Your task to perform on an android device: toggle airplane mode Image 0: 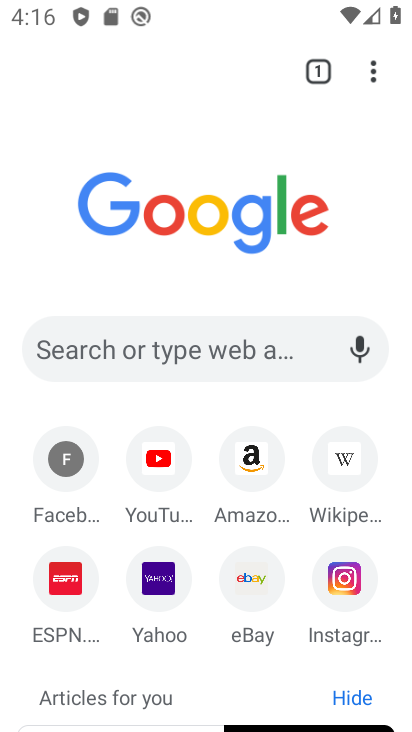
Step 0: press home button
Your task to perform on an android device: toggle airplane mode Image 1: 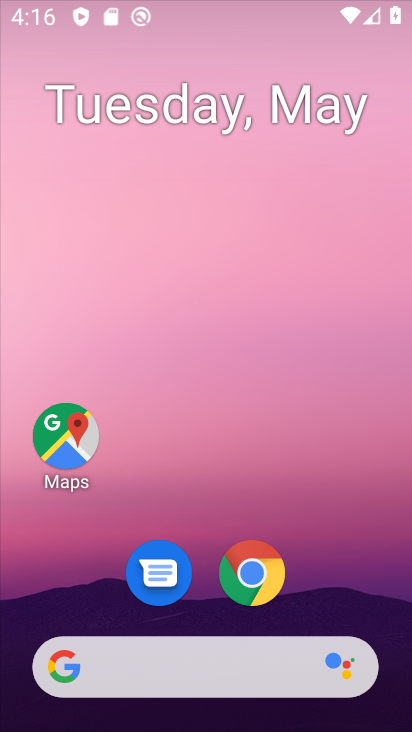
Step 1: drag from (301, 481) to (281, 52)
Your task to perform on an android device: toggle airplane mode Image 2: 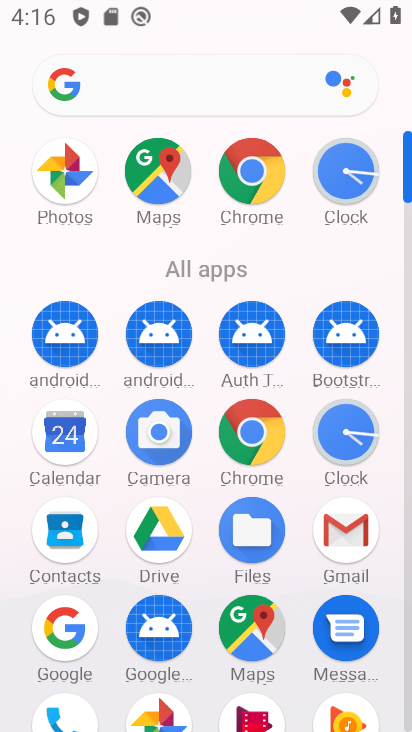
Step 2: drag from (251, 507) to (296, 116)
Your task to perform on an android device: toggle airplane mode Image 3: 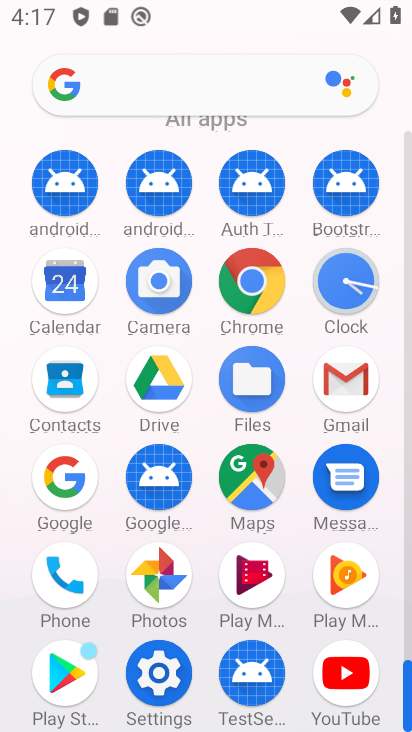
Step 3: click (159, 668)
Your task to perform on an android device: toggle airplane mode Image 4: 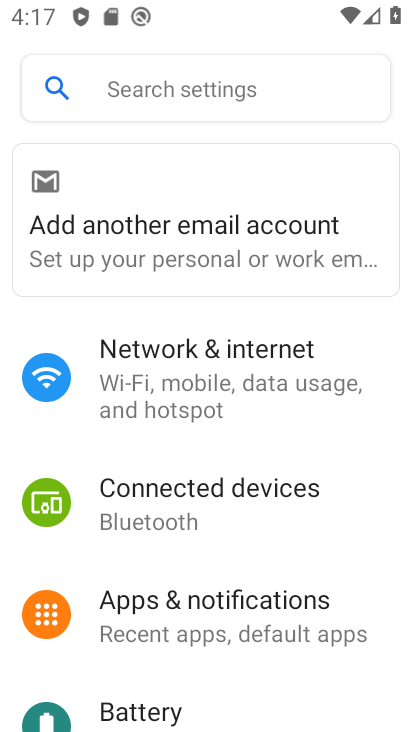
Step 4: click (190, 354)
Your task to perform on an android device: toggle airplane mode Image 5: 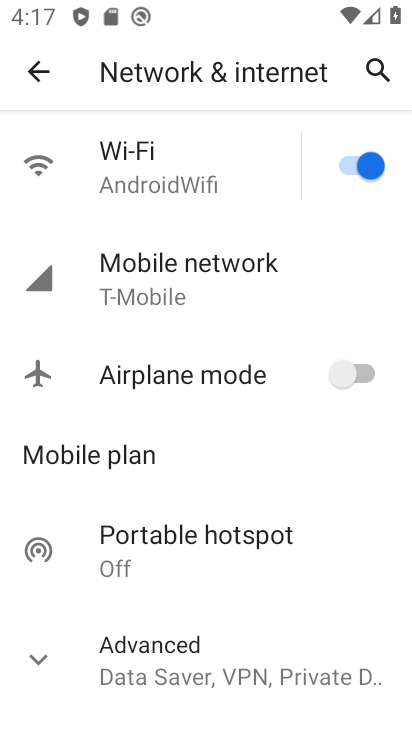
Step 5: click (342, 381)
Your task to perform on an android device: toggle airplane mode Image 6: 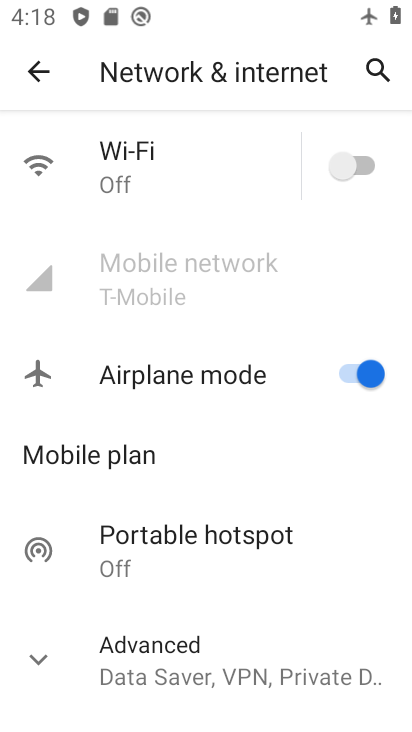
Step 6: task complete